Your task to perform on an android device: empty trash in google photos Image 0: 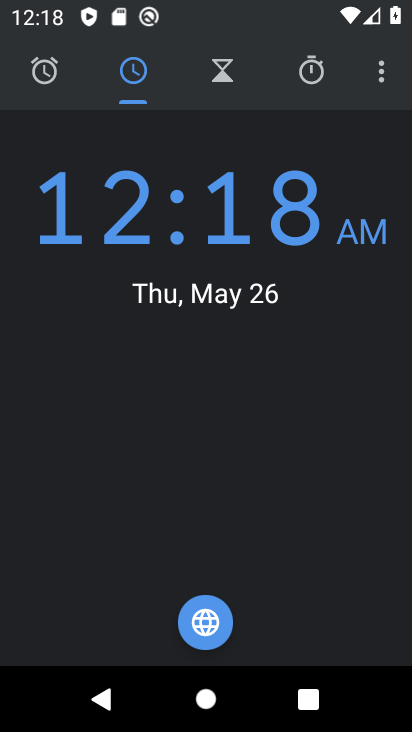
Step 0: press home button
Your task to perform on an android device: empty trash in google photos Image 1: 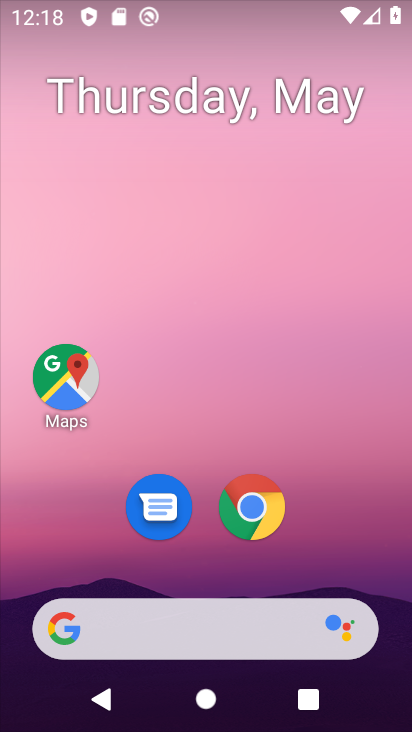
Step 1: drag from (105, 463) to (207, 165)
Your task to perform on an android device: empty trash in google photos Image 2: 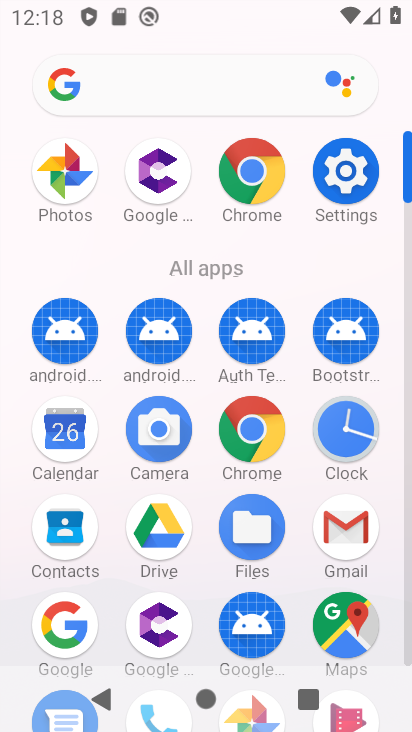
Step 2: drag from (195, 592) to (284, 417)
Your task to perform on an android device: empty trash in google photos Image 3: 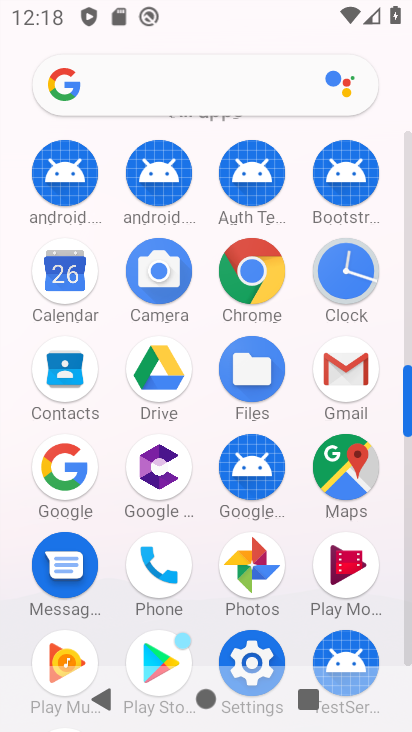
Step 3: click (256, 580)
Your task to perform on an android device: empty trash in google photos Image 4: 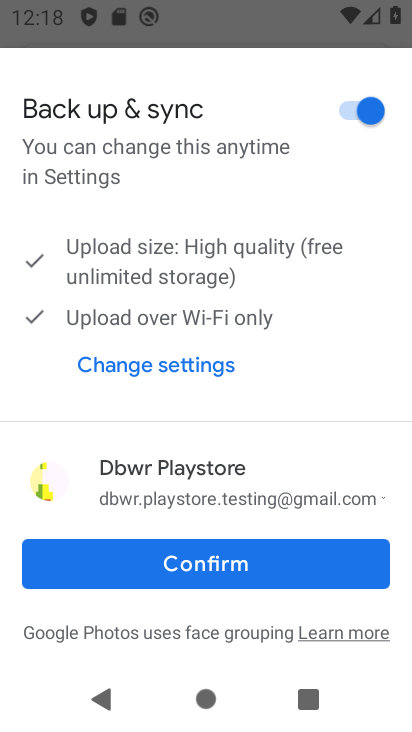
Step 4: click (230, 568)
Your task to perform on an android device: empty trash in google photos Image 5: 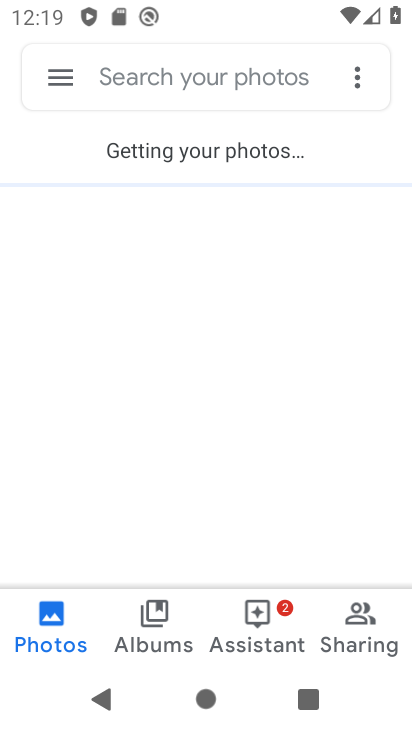
Step 5: click (82, 71)
Your task to perform on an android device: empty trash in google photos Image 6: 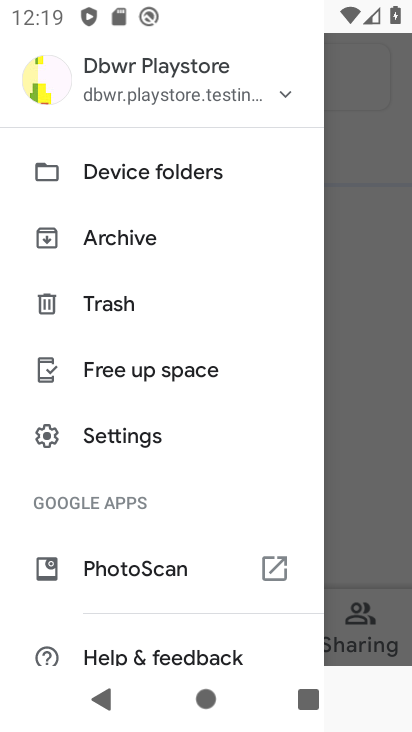
Step 6: click (149, 317)
Your task to perform on an android device: empty trash in google photos Image 7: 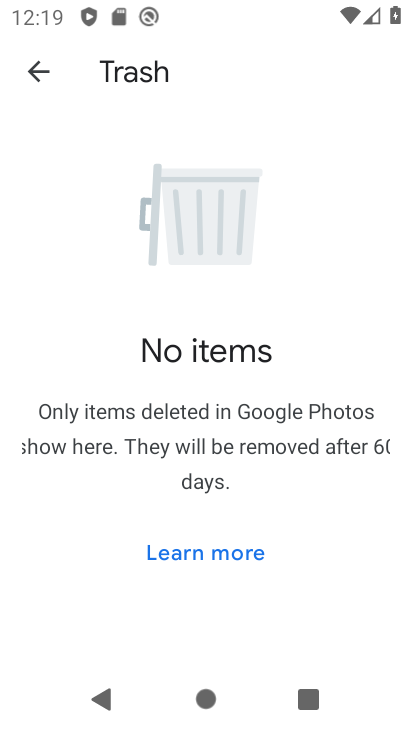
Step 7: task complete